Your task to perform on an android device: Clear the cart on walmart.com. Search for logitech g933 on walmart.com, select the first entry, add it to the cart, then select checkout. Image 0: 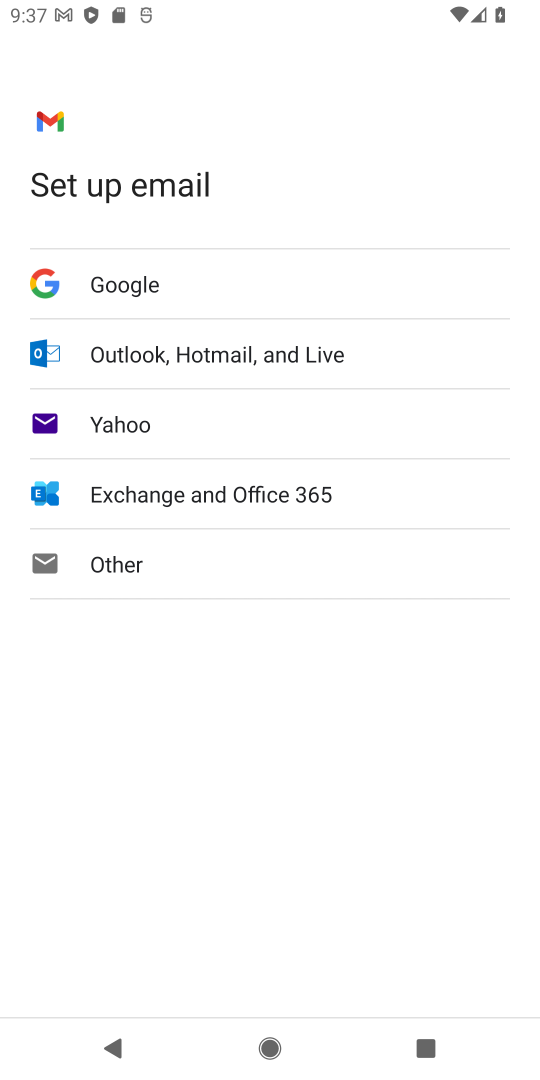
Step 0: press home button
Your task to perform on an android device: Clear the cart on walmart.com. Search for logitech g933 on walmart.com, select the first entry, add it to the cart, then select checkout. Image 1: 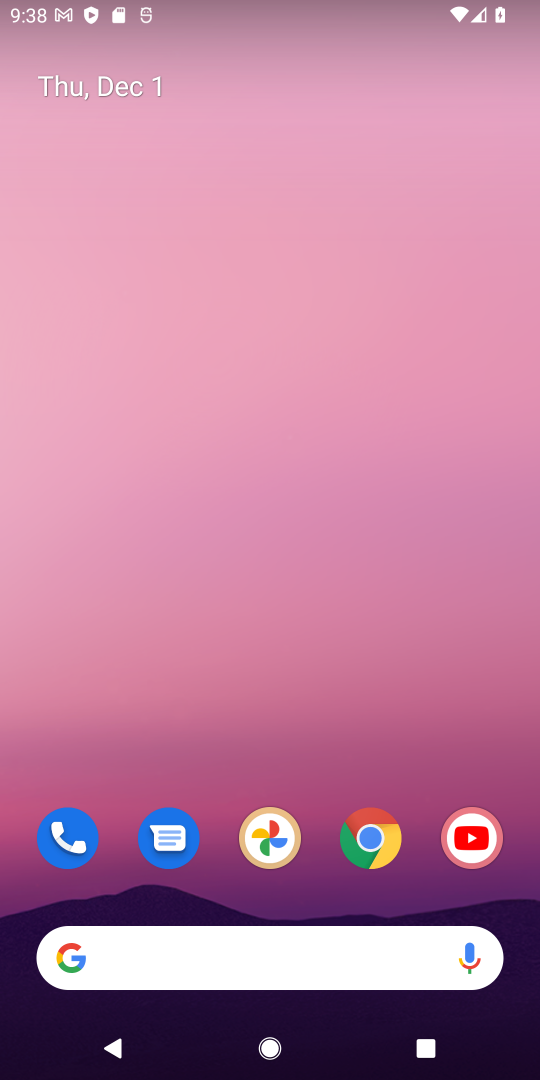
Step 1: drag from (181, 990) to (228, 499)
Your task to perform on an android device: Clear the cart on walmart.com. Search for logitech g933 on walmart.com, select the first entry, add it to the cart, then select checkout. Image 2: 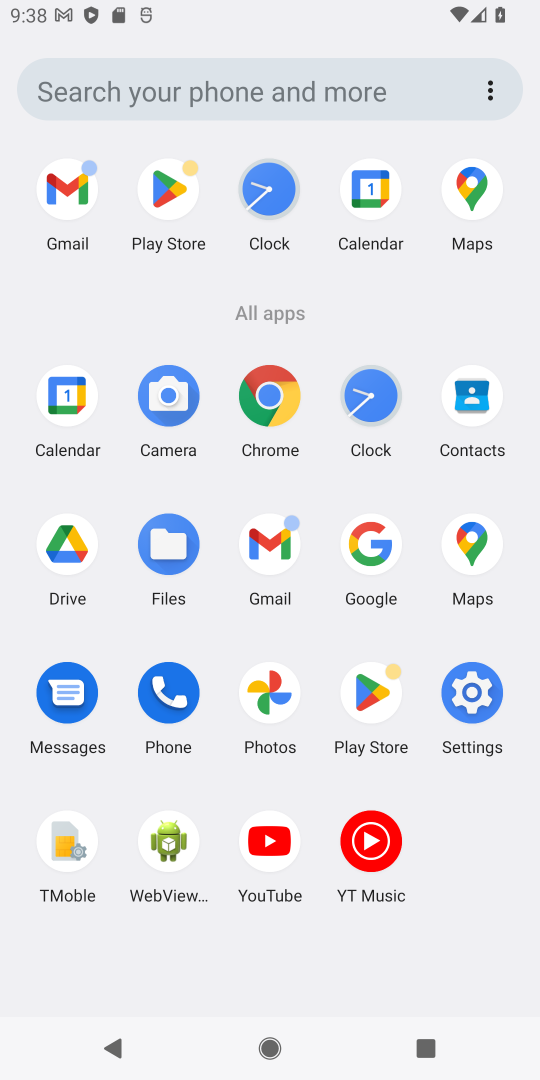
Step 2: click (366, 534)
Your task to perform on an android device: Clear the cart on walmart.com. Search for logitech g933 on walmart.com, select the first entry, add it to the cart, then select checkout. Image 3: 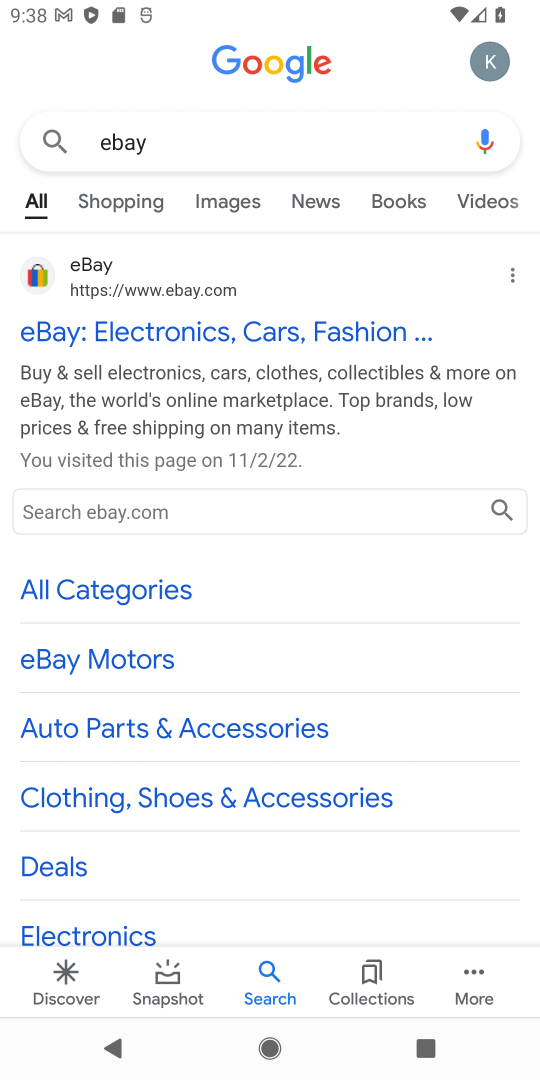
Step 3: click (138, 144)
Your task to perform on an android device: Clear the cart on walmart.com. Search for logitech g933 on walmart.com, select the first entry, add it to the cart, then select checkout. Image 4: 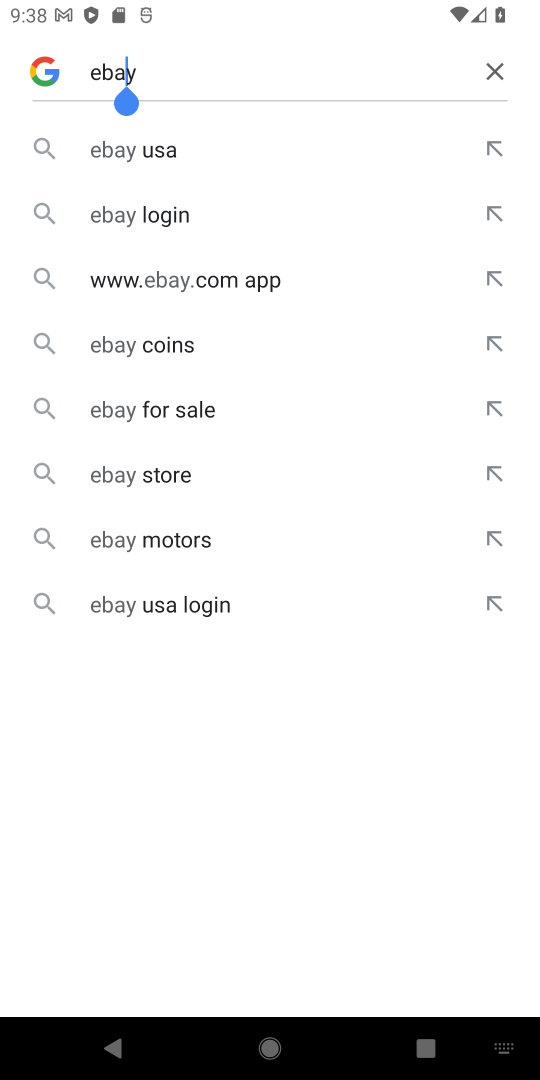
Step 4: click (501, 66)
Your task to perform on an android device: Clear the cart on walmart.com. Search for logitech g933 on walmart.com, select the first entry, add it to the cart, then select checkout. Image 5: 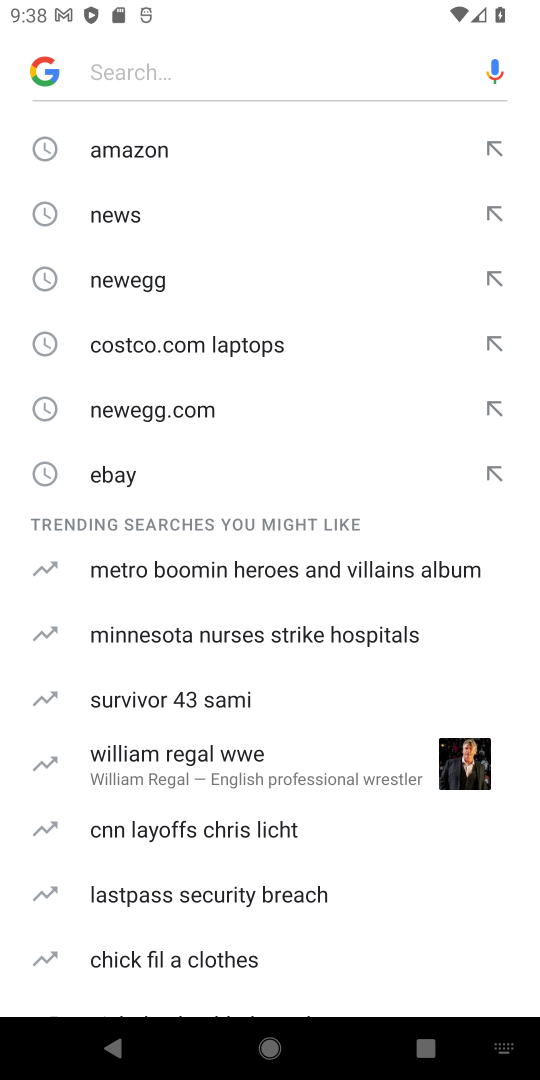
Step 5: type "walmart.com"
Your task to perform on an android device: Clear the cart on walmart.com. Search for logitech g933 on walmart.com, select the first entry, add it to the cart, then select checkout. Image 6: 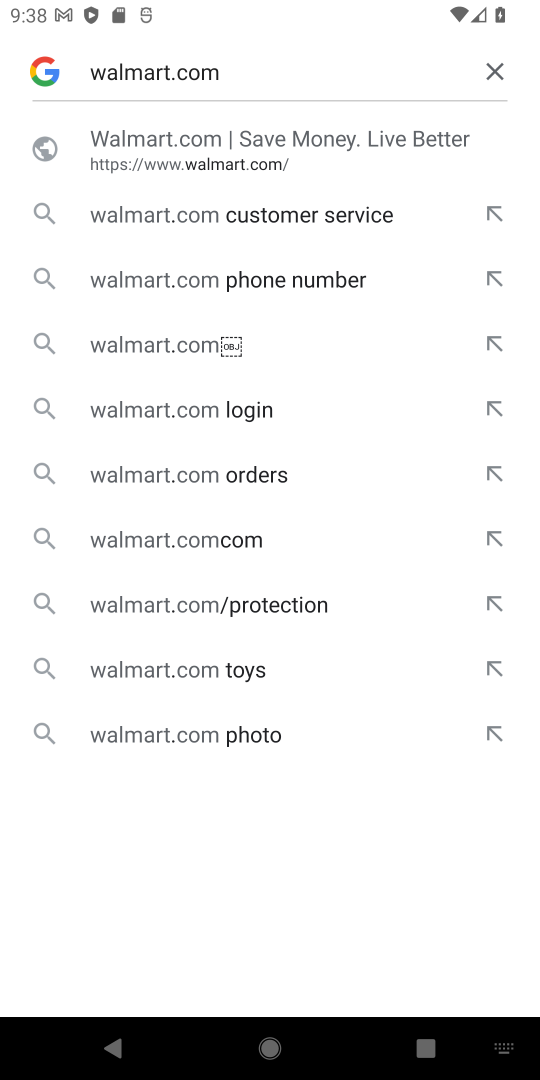
Step 6: click (148, 153)
Your task to perform on an android device: Clear the cart on walmart.com. Search for logitech g933 on walmart.com, select the first entry, add it to the cart, then select checkout. Image 7: 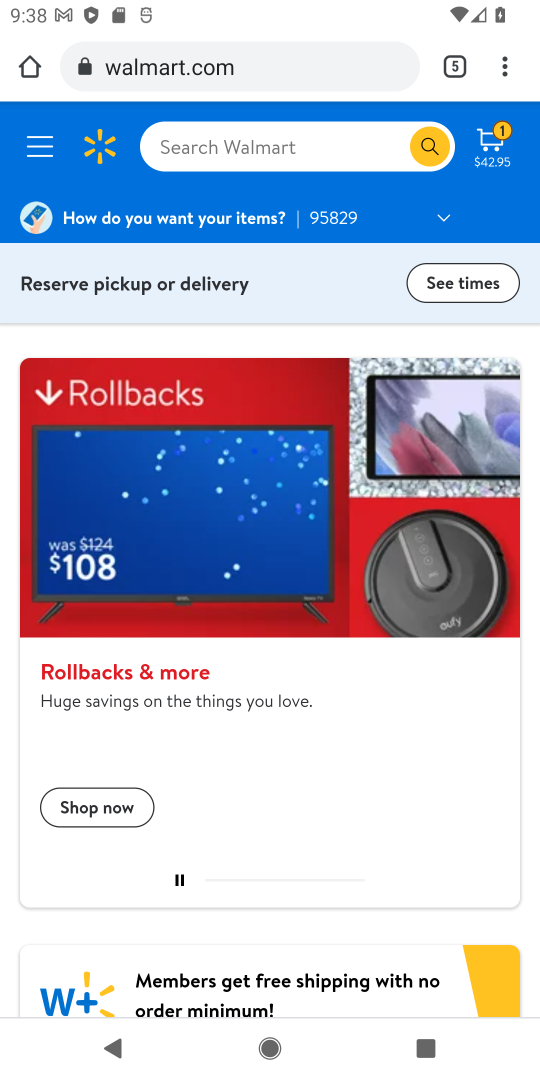
Step 7: click (213, 141)
Your task to perform on an android device: Clear the cart on walmart.com. Search for logitech g933 on walmart.com, select the first entry, add it to the cart, then select checkout. Image 8: 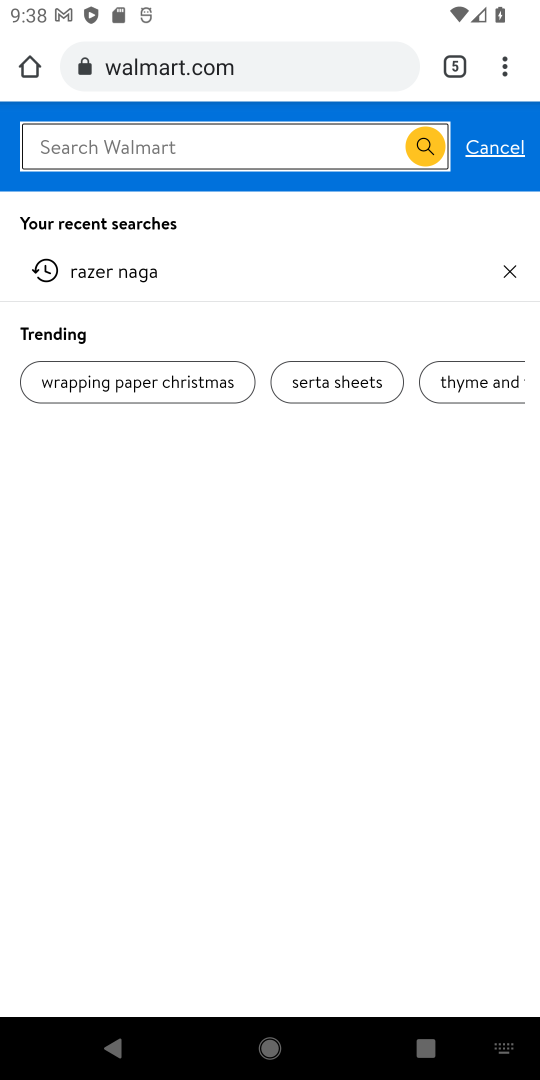
Step 8: type "logitech g933"
Your task to perform on an android device: Clear the cart on walmart.com. Search for logitech g933 on walmart.com, select the first entry, add it to the cart, then select checkout. Image 9: 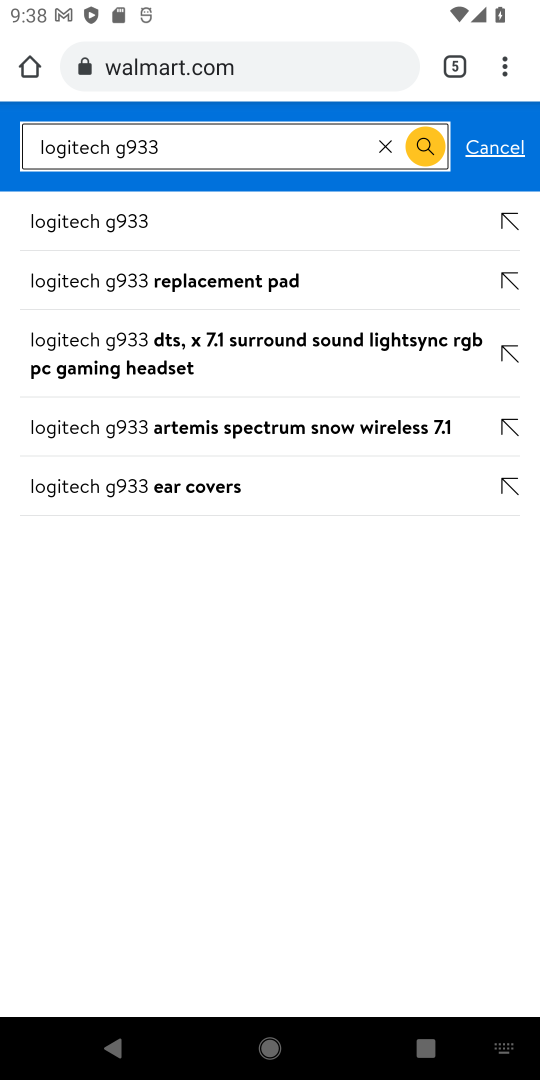
Step 9: click (122, 221)
Your task to perform on an android device: Clear the cart on walmart.com. Search for logitech g933 on walmart.com, select the first entry, add it to the cart, then select checkout. Image 10: 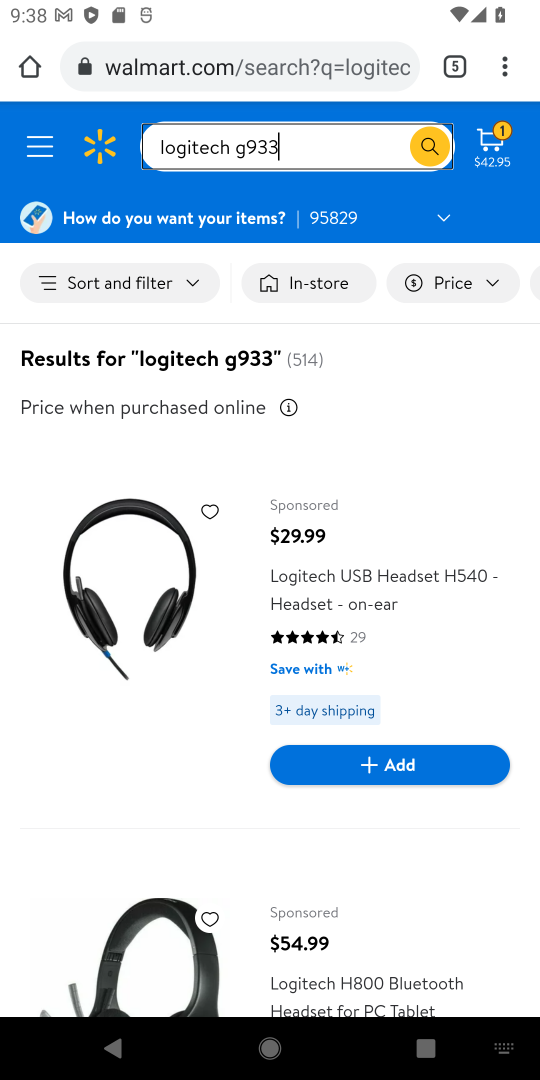
Step 10: click (388, 770)
Your task to perform on an android device: Clear the cart on walmart.com. Search for logitech g933 on walmart.com, select the first entry, add it to the cart, then select checkout. Image 11: 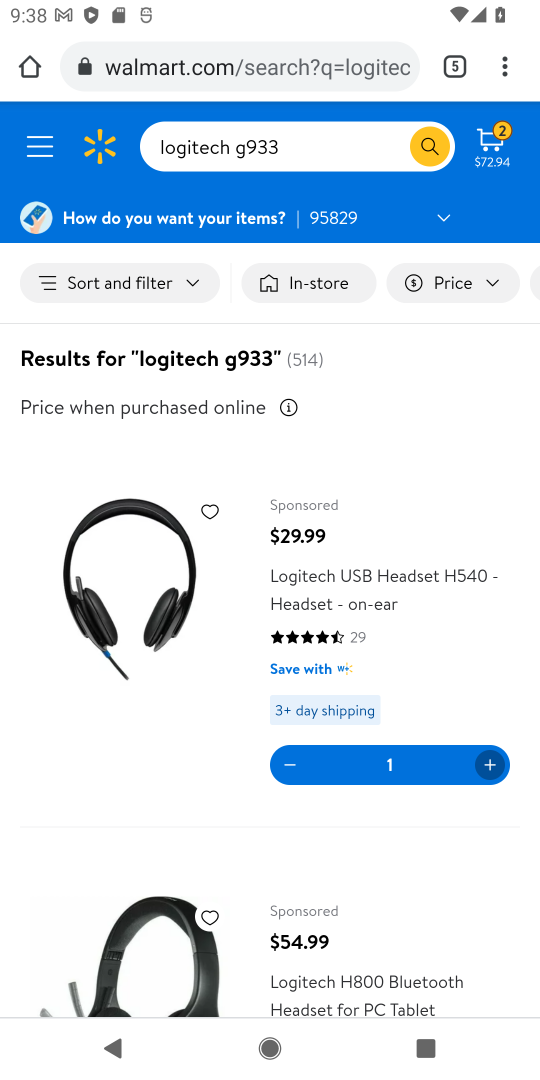
Step 11: click (489, 150)
Your task to perform on an android device: Clear the cart on walmart.com. Search for logitech g933 on walmart.com, select the first entry, add it to the cart, then select checkout. Image 12: 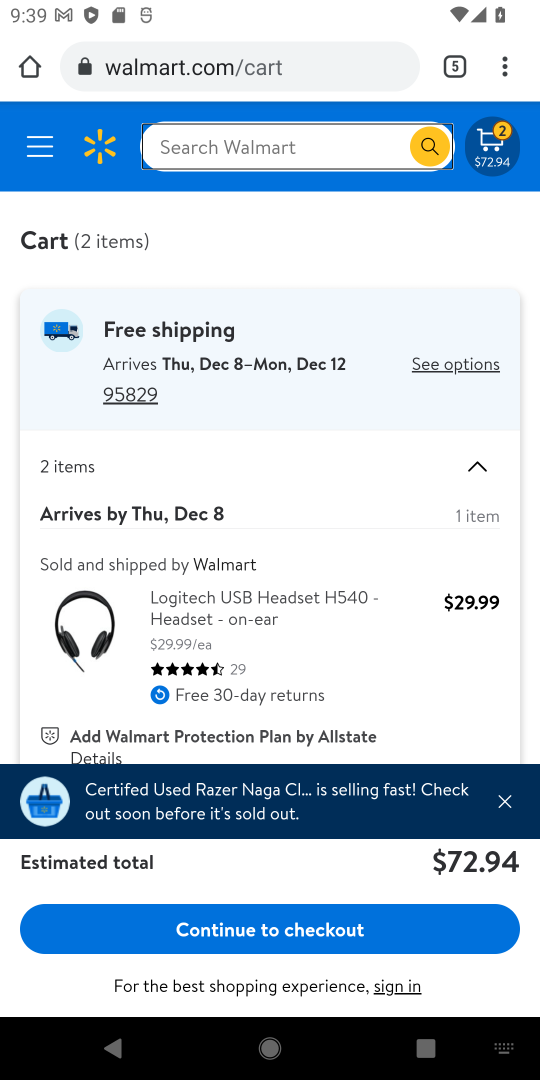
Step 12: task complete